Your task to perform on an android device: Is it going to rain today? Image 0: 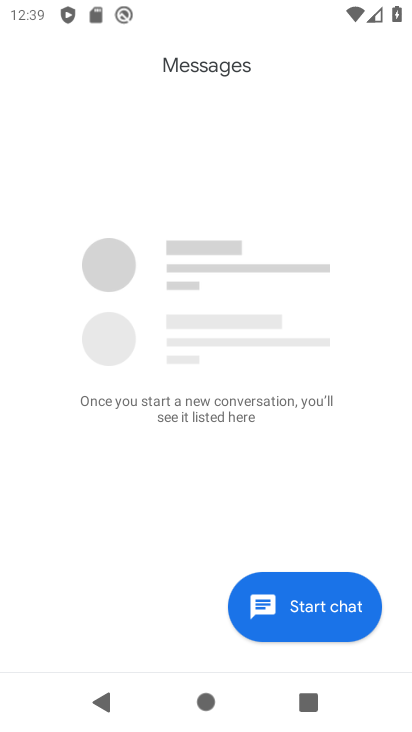
Step 0: drag from (335, 355) to (346, 91)
Your task to perform on an android device: Is it going to rain today? Image 1: 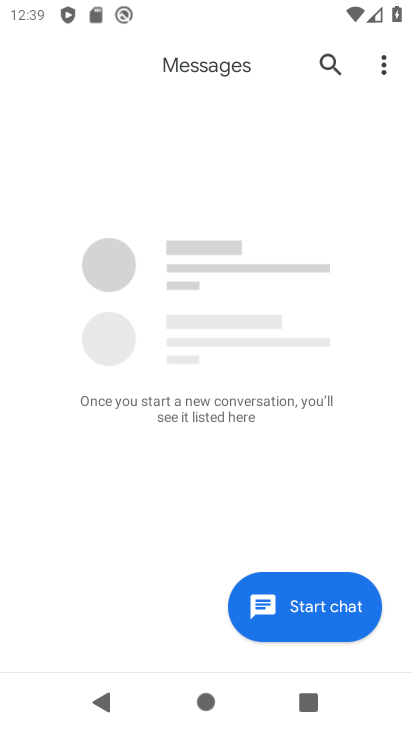
Step 1: press home button
Your task to perform on an android device: Is it going to rain today? Image 2: 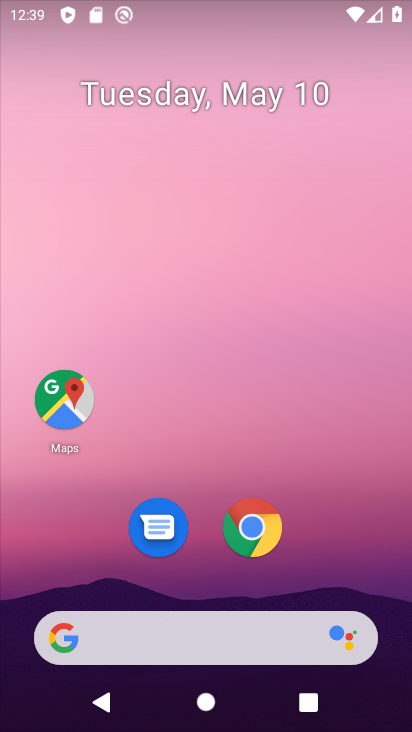
Step 2: drag from (364, 458) to (368, 81)
Your task to perform on an android device: Is it going to rain today? Image 3: 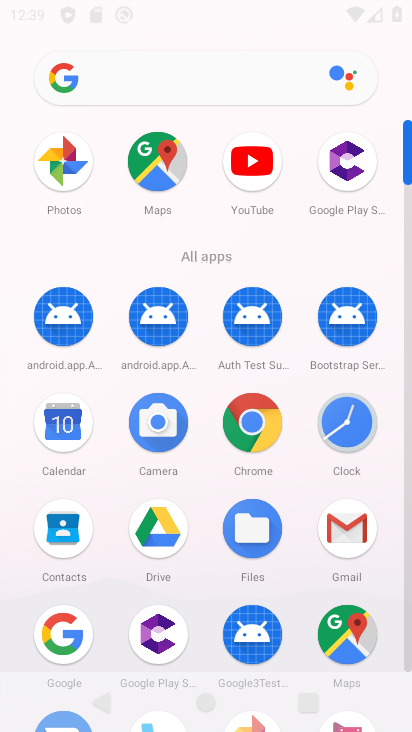
Step 3: drag from (212, 563) to (209, 319)
Your task to perform on an android device: Is it going to rain today? Image 4: 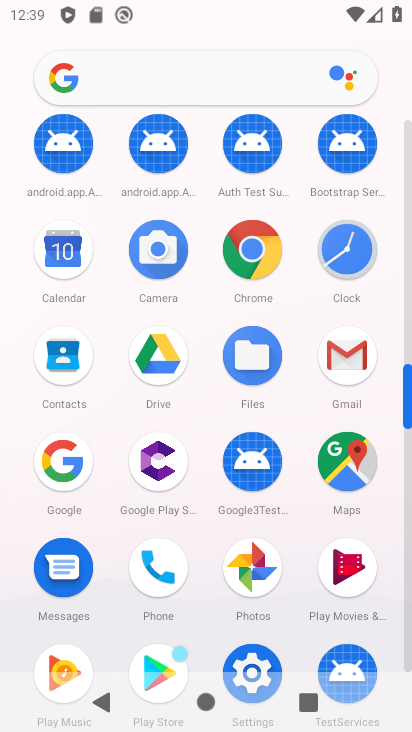
Step 4: drag from (329, 566) to (309, 594)
Your task to perform on an android device: Is it going to rain today? Image 5: 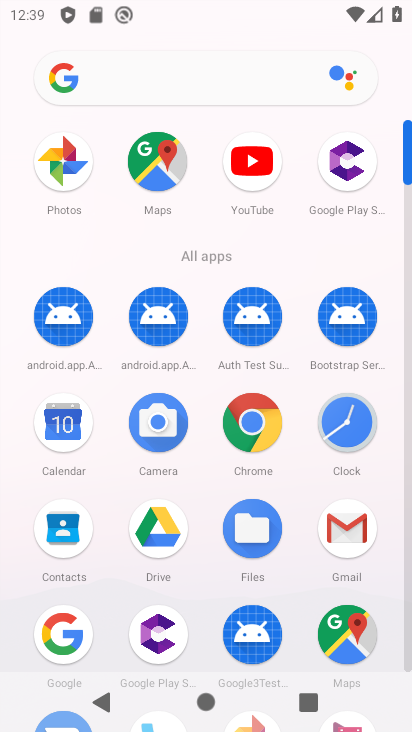
Step 5: click (236, 433)
Your task to perform on an android device: Is it going to rain today? Image 6: 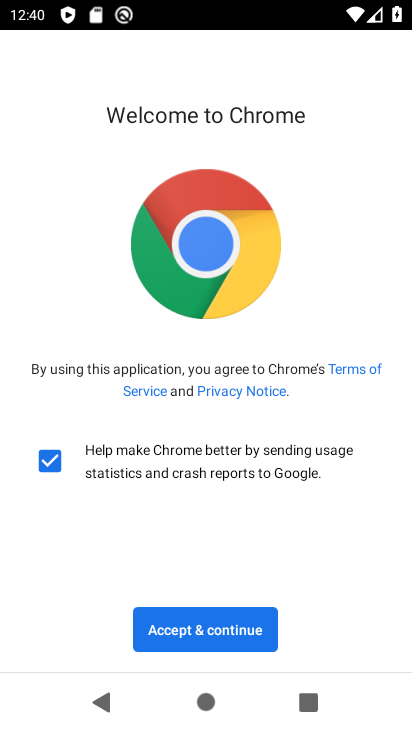
Step 6: click (240, 628)
Your task to perform on an android device: Is it going to rain today? Image 7: 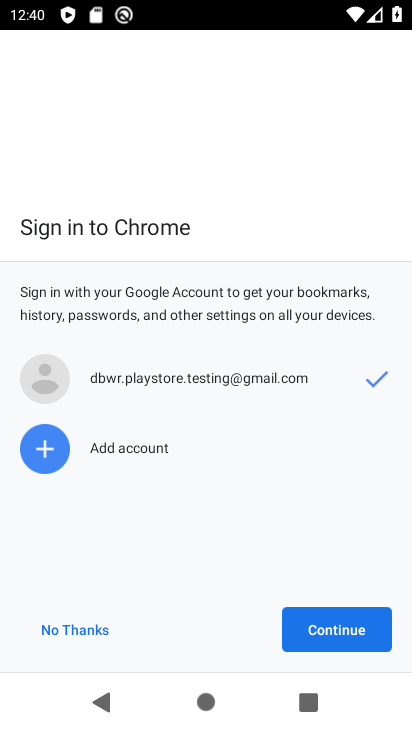
Step 7: click (311, 630)
Your task to perform on an android device: Is it going to rain today? Image 8: 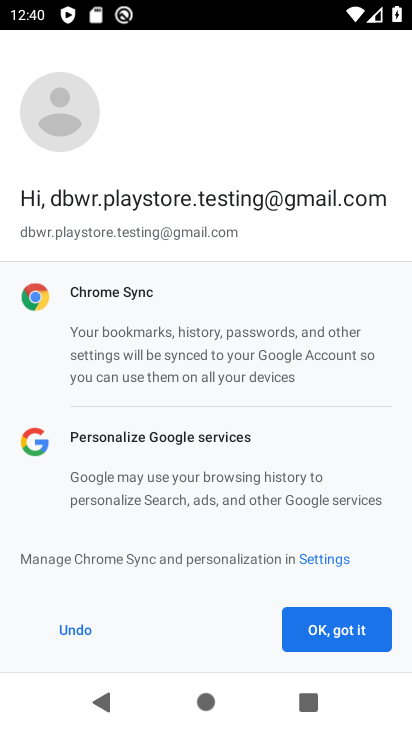
Step 8: click (320, 633)
Your task to perform on an android device: Is it going to rain today? Image 9: 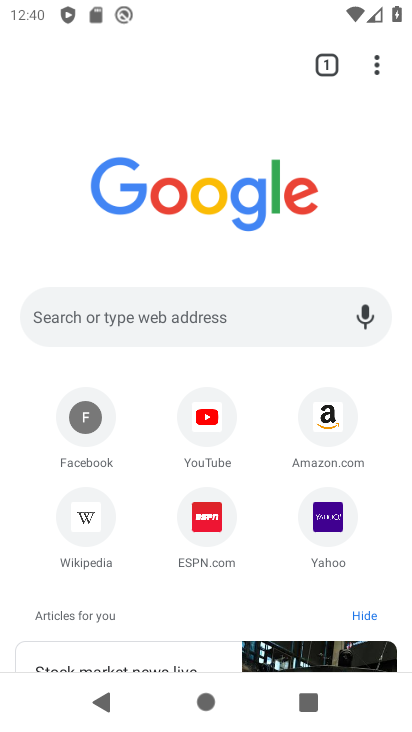
Step 9: click (174, 313)
Your task to perform on an android device: Is it going to rain today? Image 10: 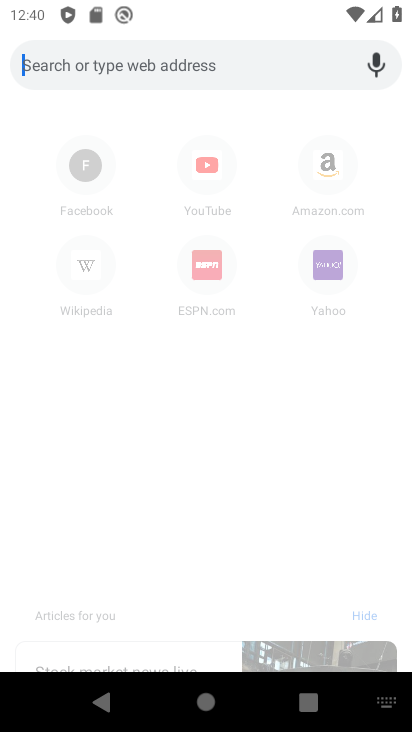
Step 10: type "is it going to rain today?"
Your task to perform on an android device: Is it going to rain today? Image 11: 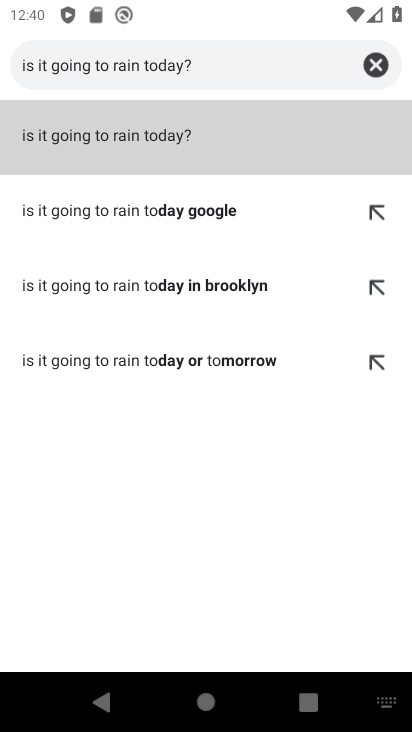
Step 11: click (130, 131)
Your task to perform on an android device: Is it going to rain today? Image 12: 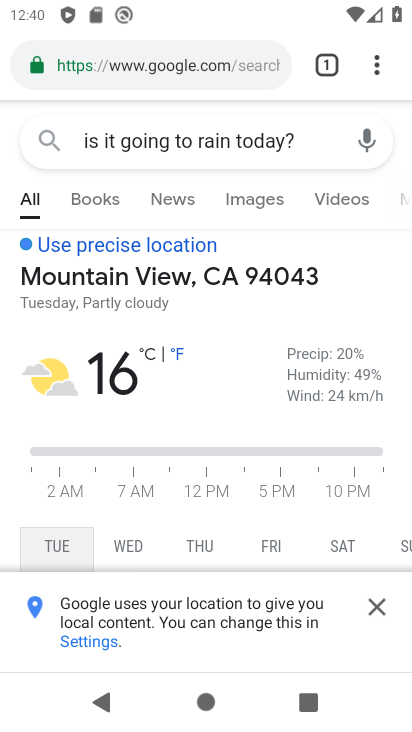
Step 12: task complete